Your task to perform on an android device: visit the assistant section in the google photos Image 0: 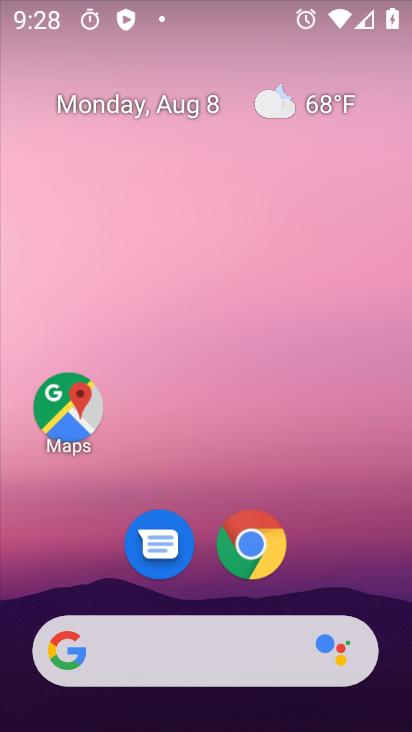
Step 0: drag from (201, 587) to (195, 52)
Your task to perform on an android device: visit the assistant section in the google photos Image 1: 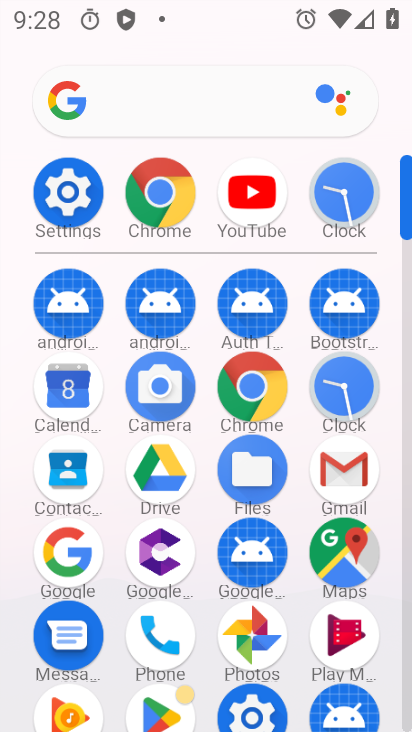
Step 1: click (248, 631)
Your task to perform on an android device: visit the assistant section in the google photos Image 2: 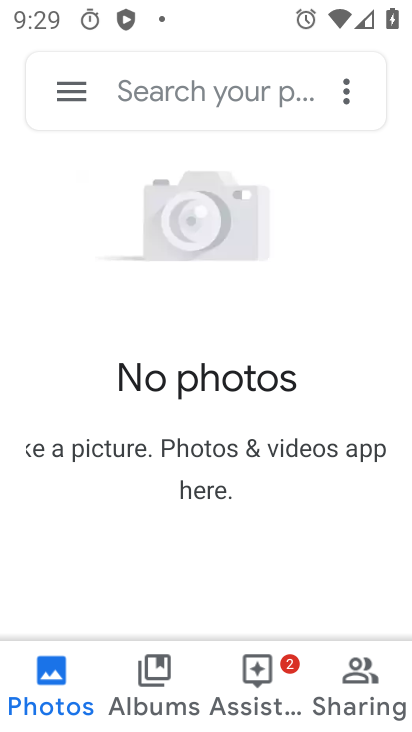
Step 2: click (249, 680)
Your task to perform on an android device: visit the assistant section in the google photos Image 3: 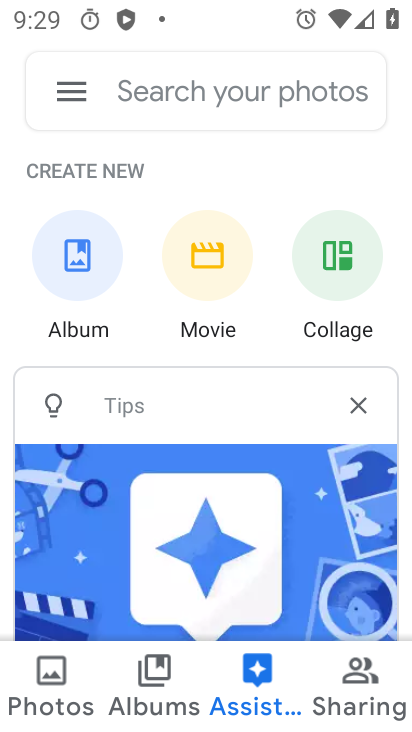
Step 3: task complete